Your task to perform on an android device: open chrome privacy settings Image 0: 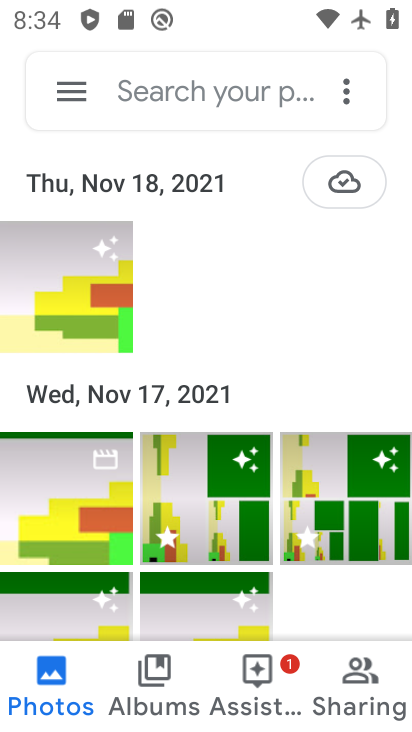
Step 0: press back button
Your task to perform on an android device: open chrome privacy settings Image 1: 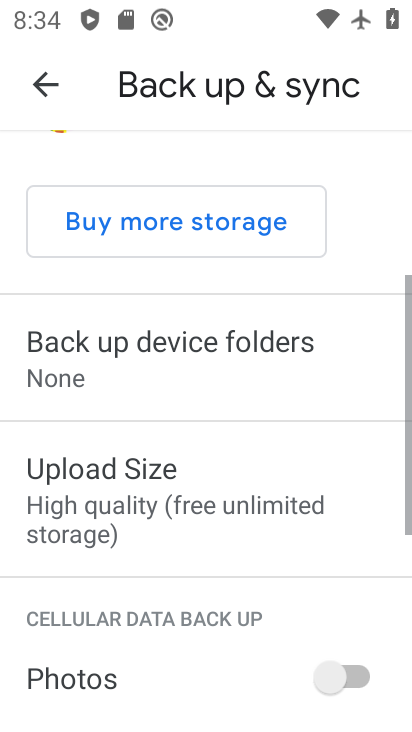
Step 1: press back button
Your task to perform on an android device: open chrome privacy settings Image 2: 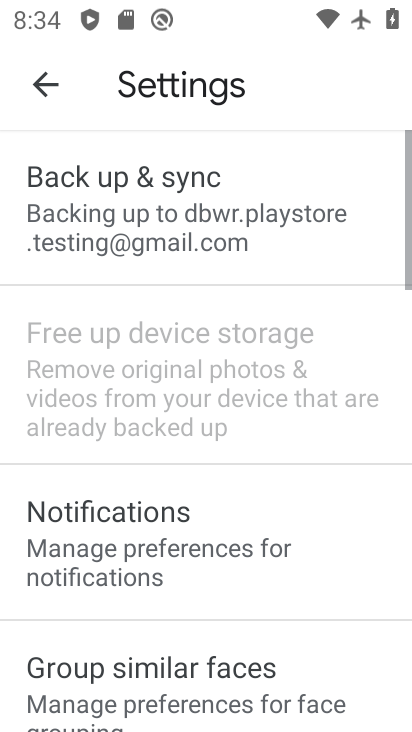
Step 2: press home button
Your task to perform on an android device: open chrome privacy settings Image 3: 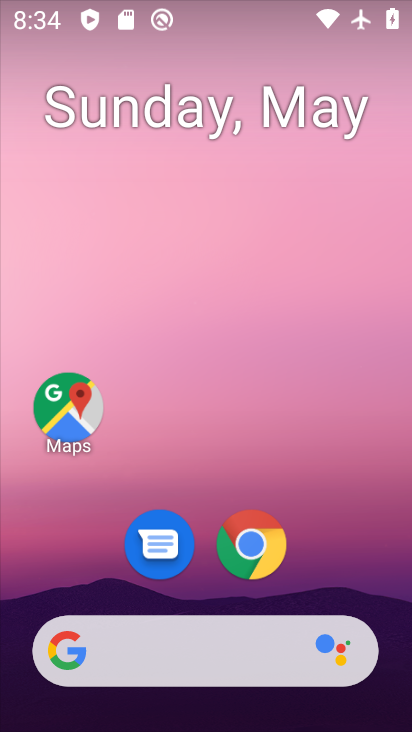
Step 3: click (245, 541)
Your task to perform on an android device: open chrome privacy settings Image 4: 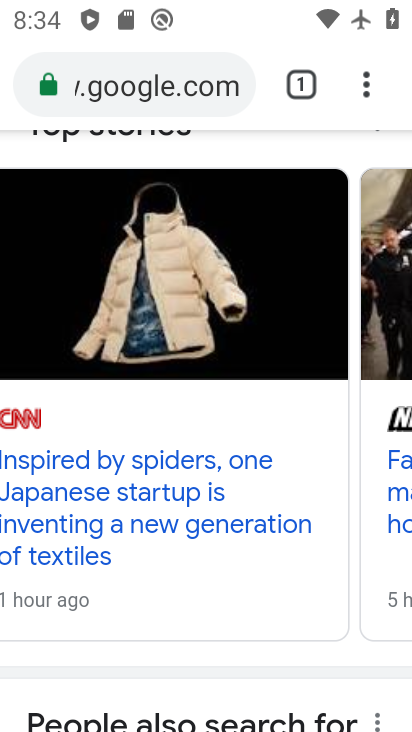
Step 4: drag from (367, 83) to (115, 555)
Your task to perform on an android device: open chrome privacy settings Image 5: 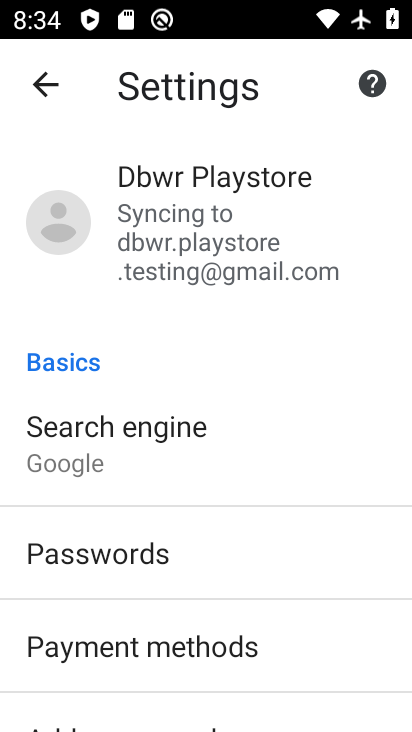
Step 5: drag from (235, 610) to (253, 146)
Your task to perform on an android device: open chrome privacy settings Image 6: 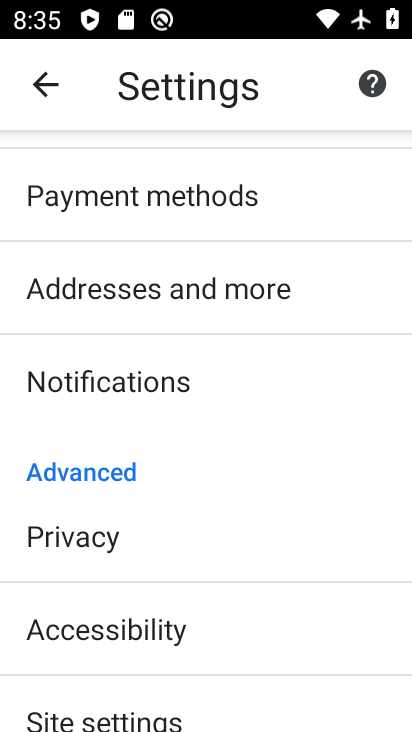
Step 6: drag from (208, 577) to (266, 198)
Your task to perform on an android device: open chrome privacy settings Image 7: 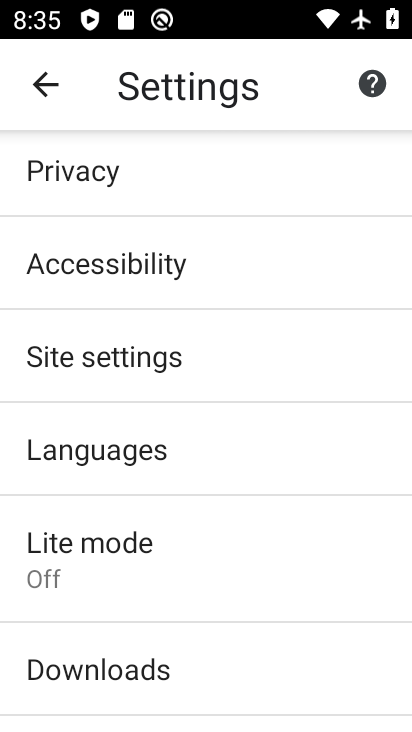
Step 7: drag from (275, 588) to (262, 267)
Your task to perform on an android device: open chrome privacy settings Image 8: 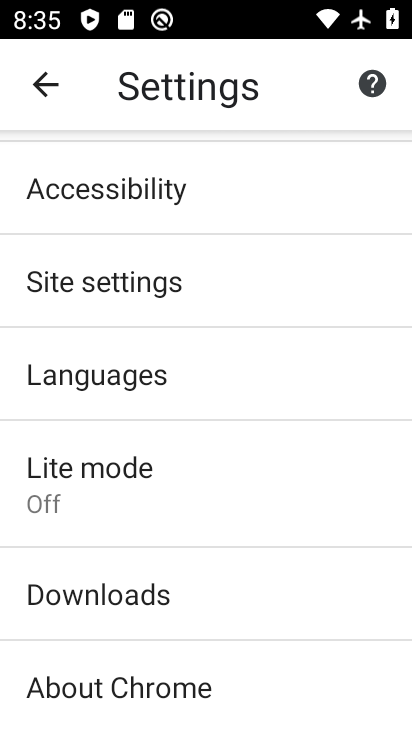
Step 8: click (171, 285)
Your task to perform on an android device: open chrome privacy settings Image 9: 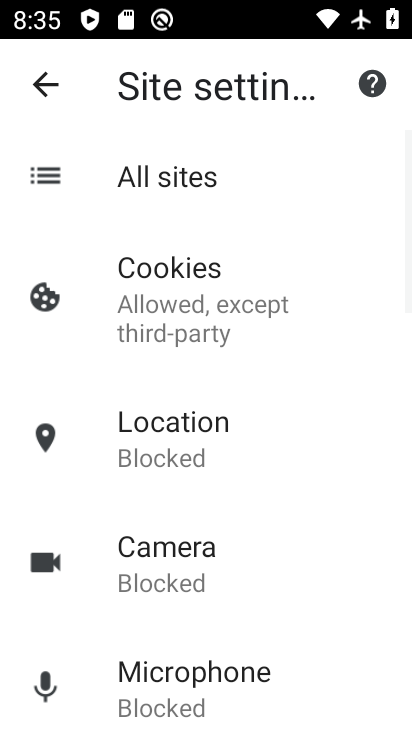
Step 9: drag from (244, 652) to (284, 211)
Your task to perform on an android device: open chrome privacy settings Image 10: 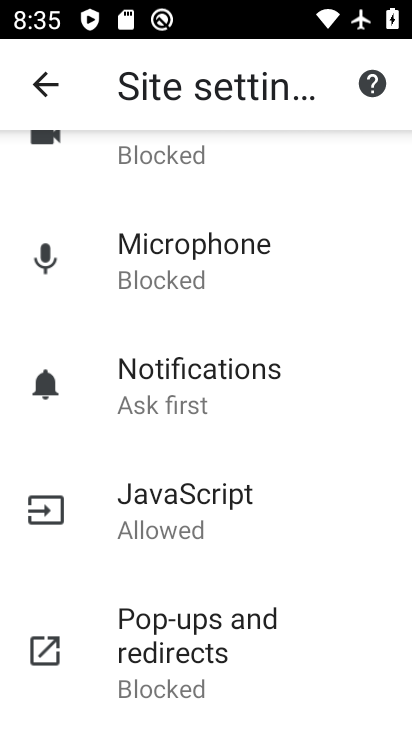
Step 10: drag from (262, 617) to (258, 179)
Your task to perform on an android device: open chrome privacy settings Image 11: 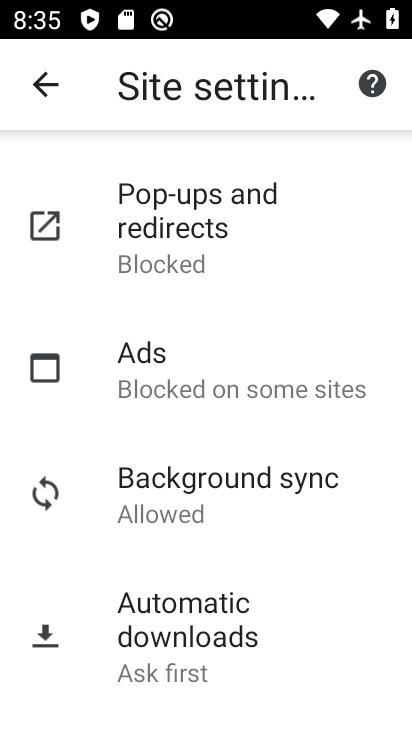
Step 11: drag from (246, 556) to (262, 189)
Your task to perform on an android device: open chrome privacy settings Image 12: 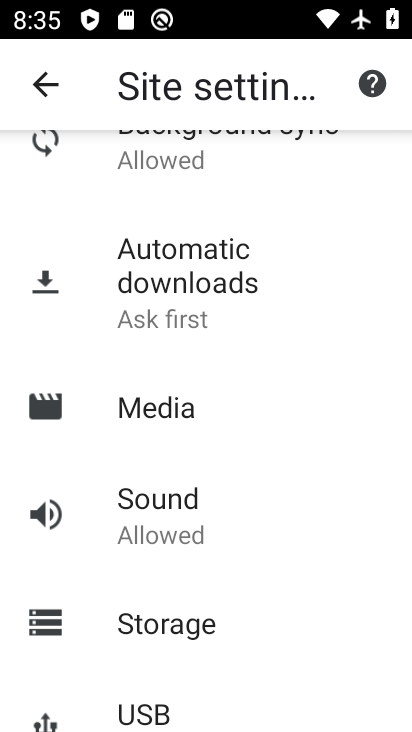
Step 12: drag from (263, 574) to (263, 150)
Your task to perform on an android device: open chrome privacy settings Image 13: 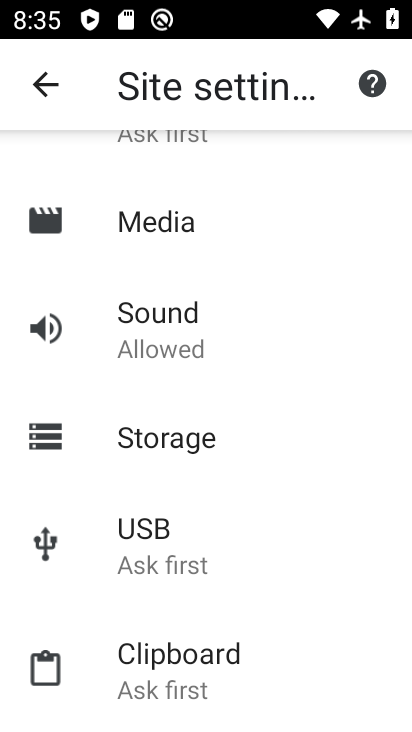
Step 13: drag from (276, 556) to (276, 176)
Your task to perform on an android device: open chrome privacy settings Image 14: 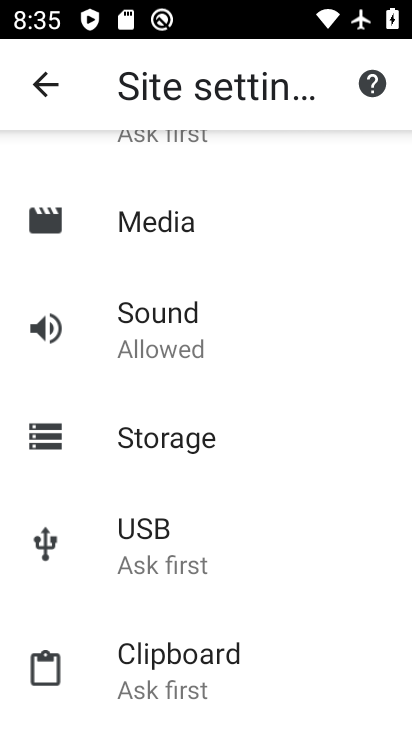
Step 14: click (309, 697)
Your task to perform on an android device: open chrome privacy settings Image 15: 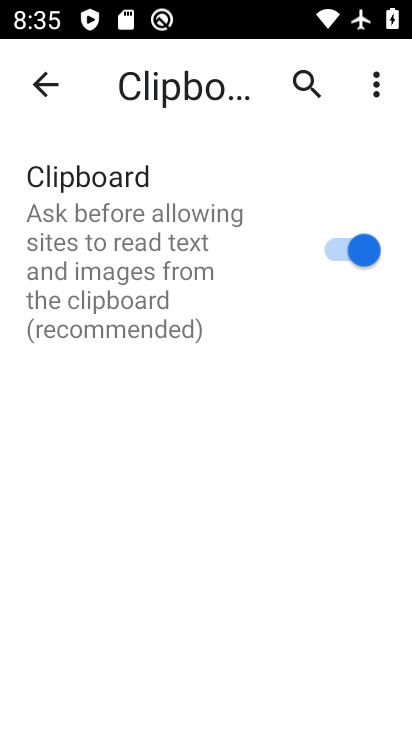
Step 15: click (63, 97)
Your task to perform on an android device: open chrome privacy settings Image 16: 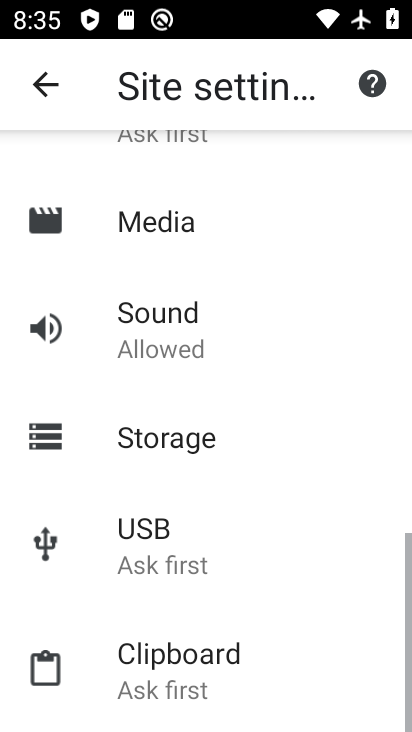
Step 16: drag from (305, 241) to (306, 699)
Your task to perform on an android device: open chrome privacy settings Image 17: 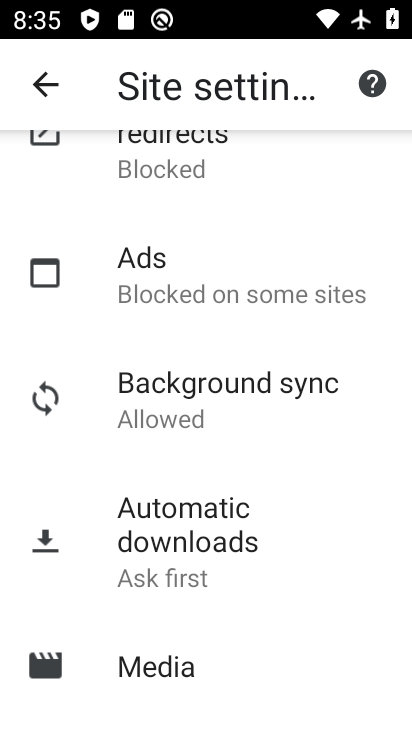
Step 17: drag from (267, 277) to (278, 663)
Your task to perform on an android device: open chrome privacy settings Image 18: 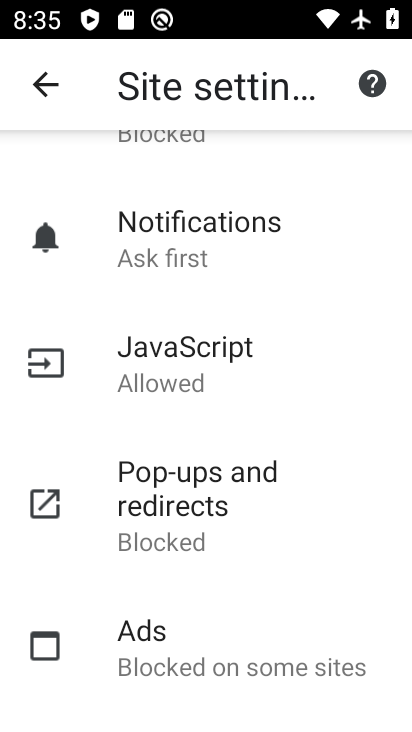
Step 18: drag from (292, 247) to (292, 666)
Your task to perform on an android device: open chrome privacy settings Image 19: 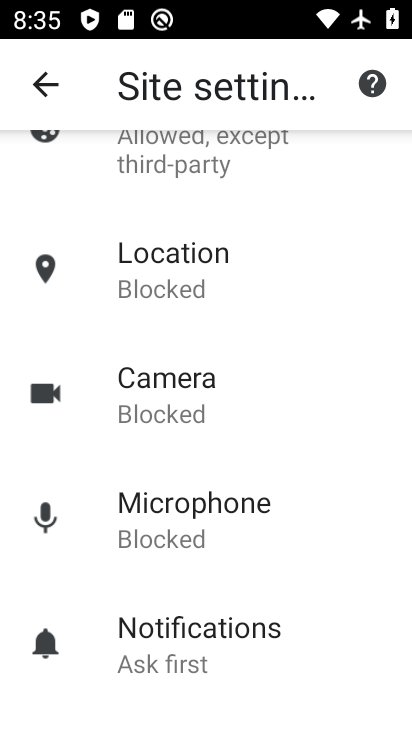
Step 19: drag from (279, 236) to (279, 661)
Your task to perform on an android device: open chrome privacy settings Image 20: 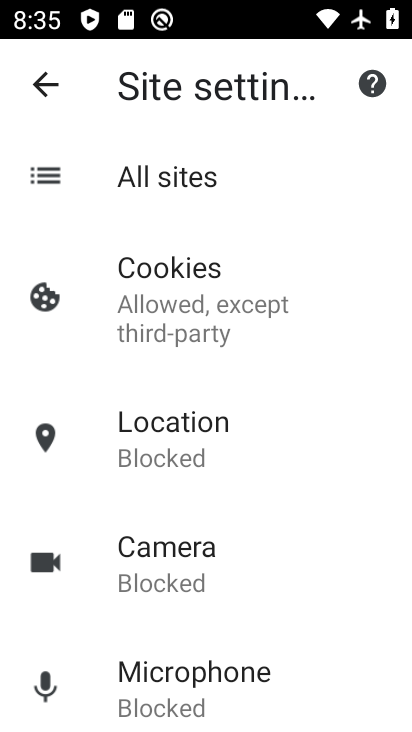
Step 20: click (46, 77)
Your task to perform on an android device: open chrome privacy settings Image 21: 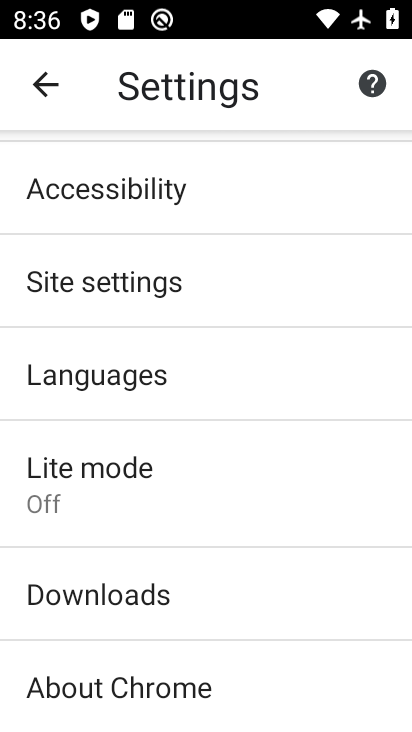
Step 21: drag from (223, 252) to (237, 647)
Your task to perform on an android device: open chrome privacy settings Image 22: 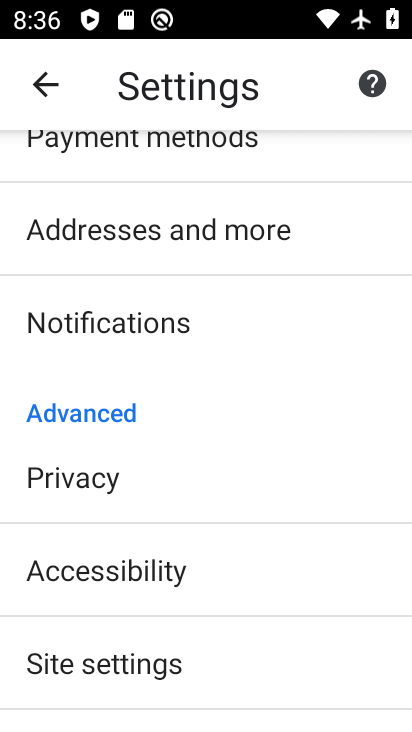
Step 22: click (130, 470)
Your task to perform on an android device: open chrome privacy settings Image 23: 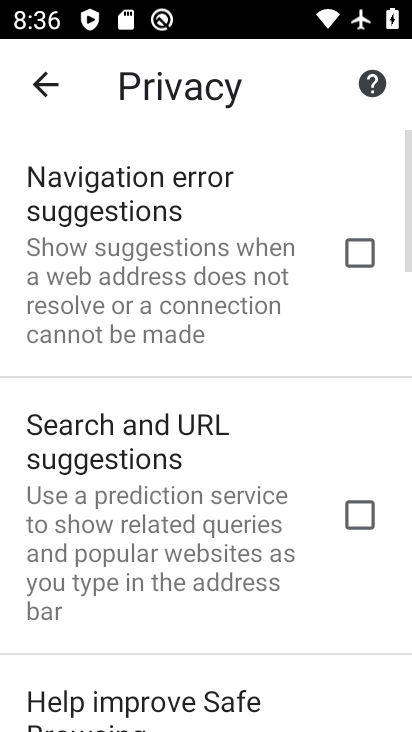
Step 23: task complete